Your task to perform on an android device: Go to Google Image 0: 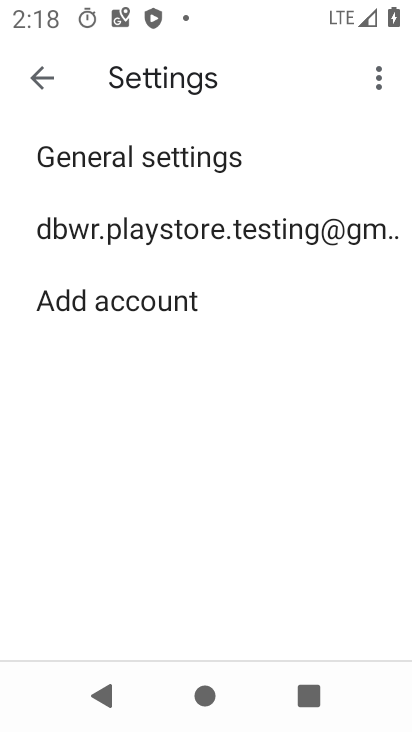
Step 0: press home button
Your task to perform on an android device: Go to Google Image 1: 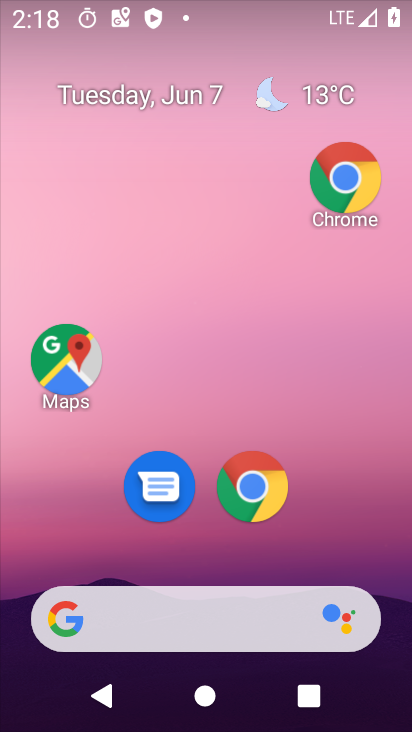
Step 1: drag from (141, 506) to (210, 120)
Your task to perform on an android device: Go to Google Image 2: 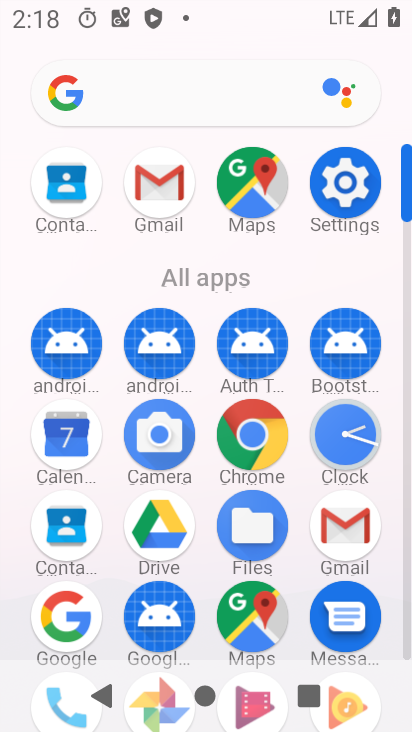
Step 2: drag from (143, 631) to (238, 362)
Your task to perform on an android device: Go to Google Image 3: 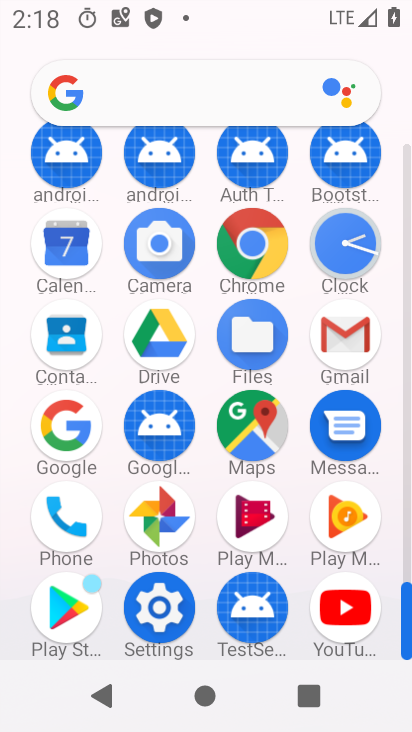
Step 3: click (65, 439)
Your task to perform on an android device: Go to Google Image 4: 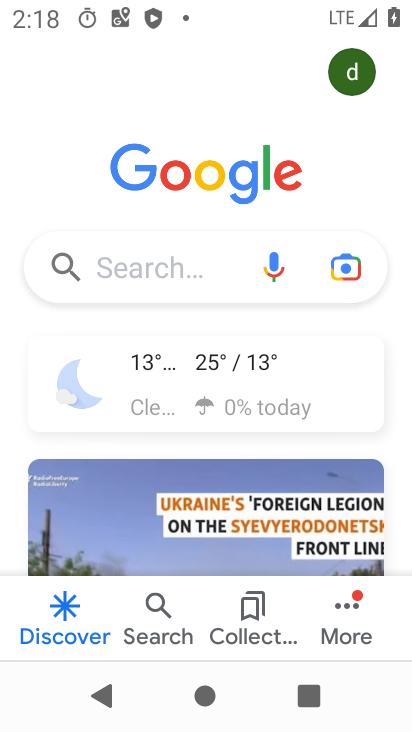
Step 4: task complete